Your task to perform on an android device: Go to ESPN.com Image 0: 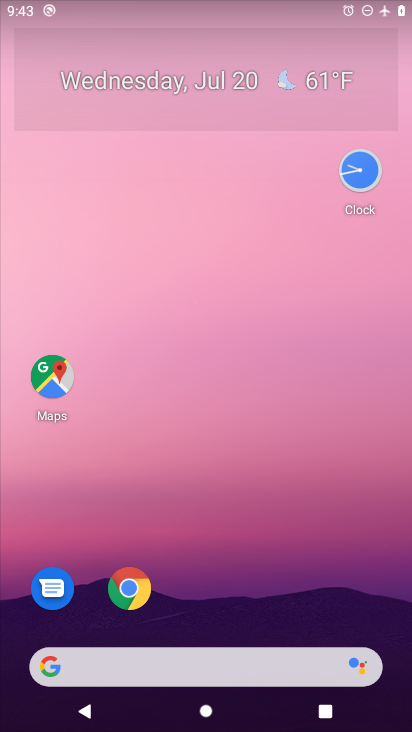
Step 0: click (93, 666)
Your task to perform on an android device: Go to ESPN.com Image 1: 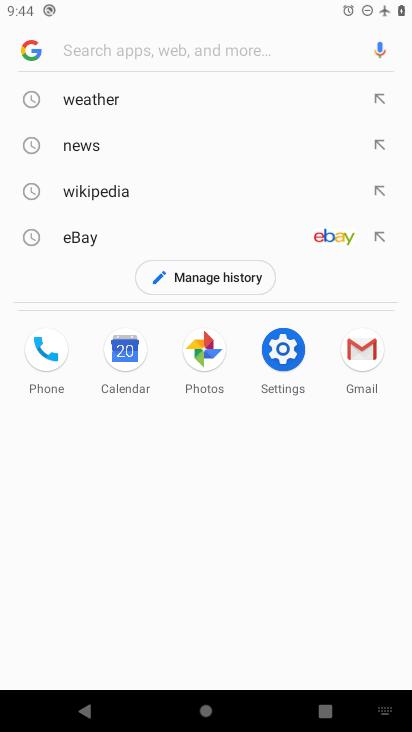
Step 1: type "ESPN.com"
Your task to perform on an android device: Go to ESPN.com Image 2: 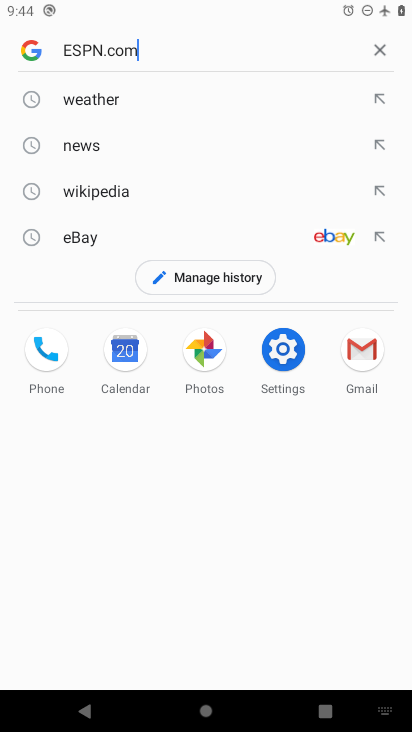
Step 2: type ""
Your task to perform on an android device: Go to ESPN.com Image 3: 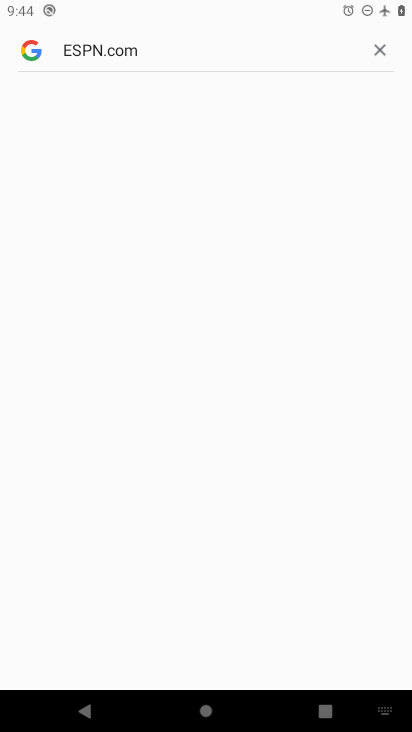
Step 3: type ""
Your task to perform on an android device: Go to ESPN.com Image 4: 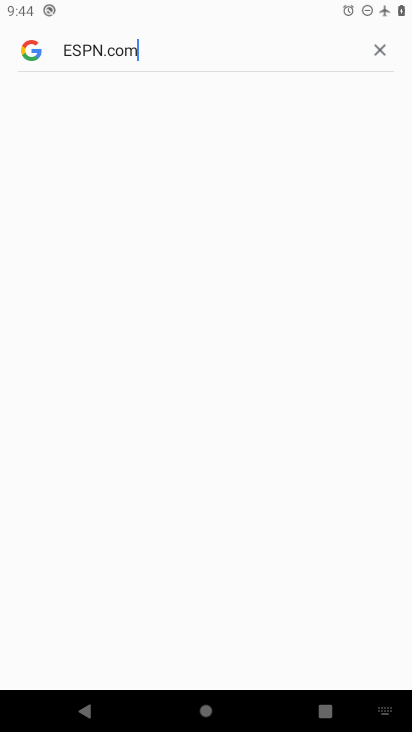
Step 4: type ""
Your task to perform on an android device: Go to ESPN.com Image 5: 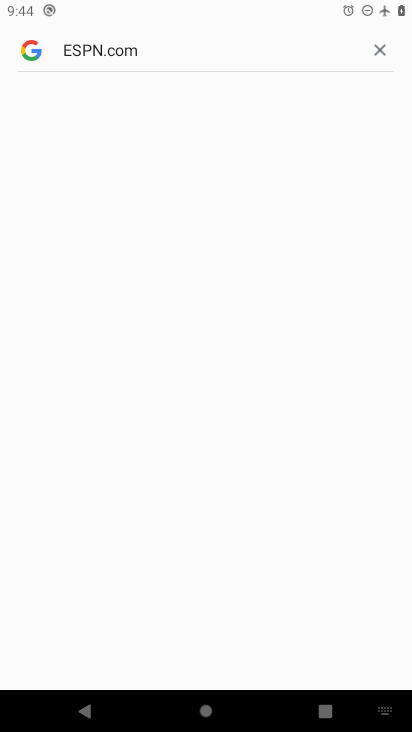
Step 5: task complete